Your task to perform on an android device: Turn on the flashlight Image 0: 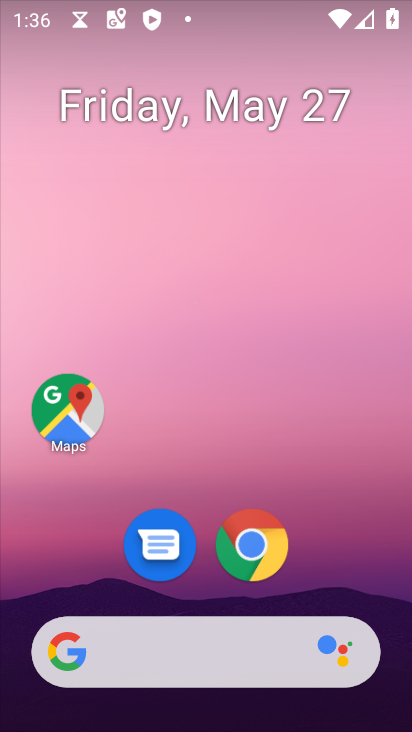
Step 0: drag from (261, 34) to (210, 595)
Your task to perform on an android device: Turn on the flashlight Image 1: 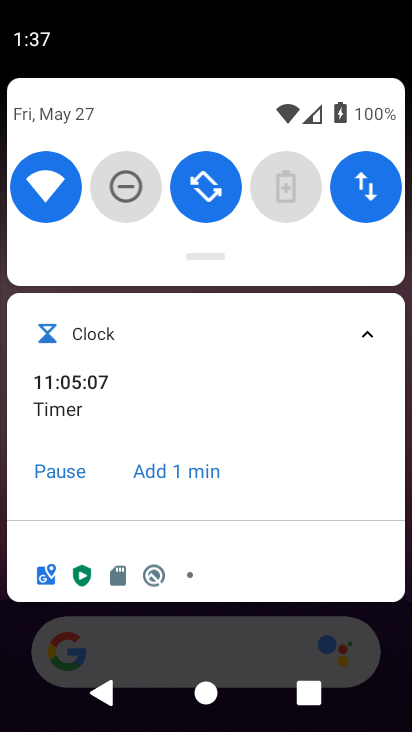
Step 1: task complete